Your task to perform on an android device: toggle sleep mode Image 0: 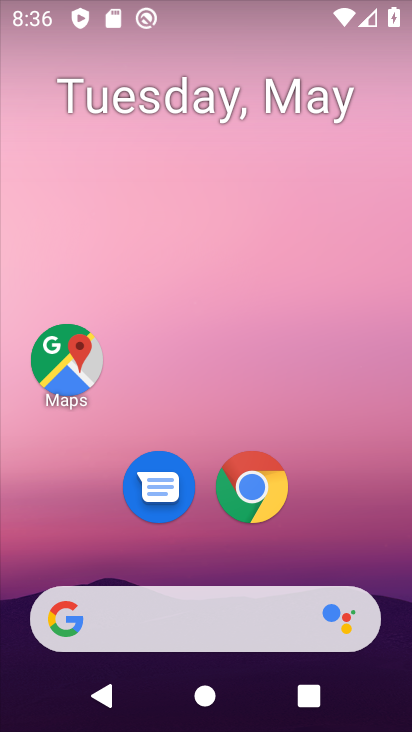
Step 0: drag from (187, 613) to (318, 141)
Your task to perform on an android device: toggle sleep mode Image 1: 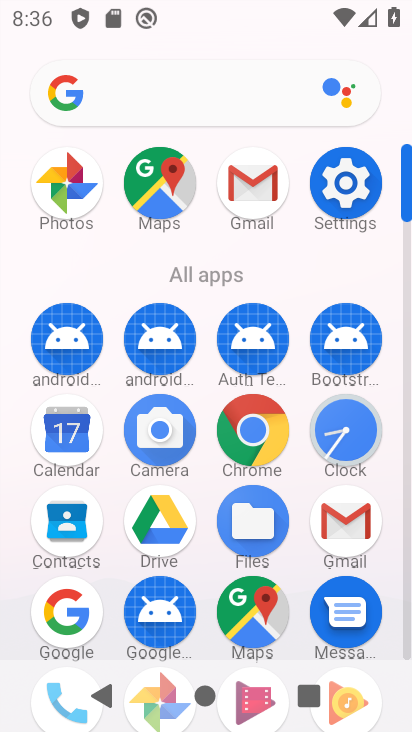
Step 1: click (339, 182)
Your task to perform on an android device: toggle sleep mode Image 2: 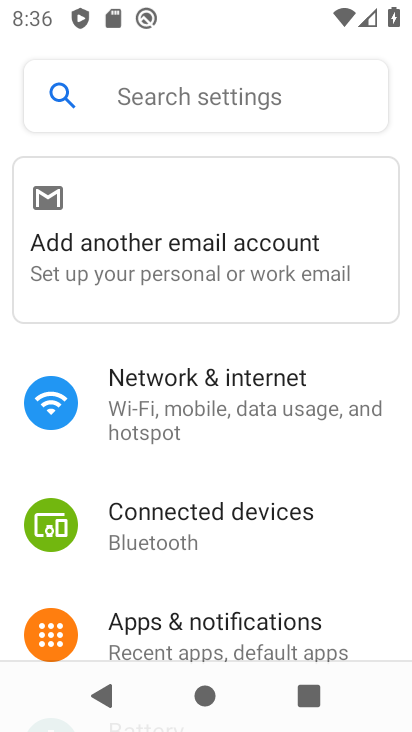
Step 2: drag from (224, 570) to (376, 146)
Your task to perform on an android device: toggle sleep mode Image 3: 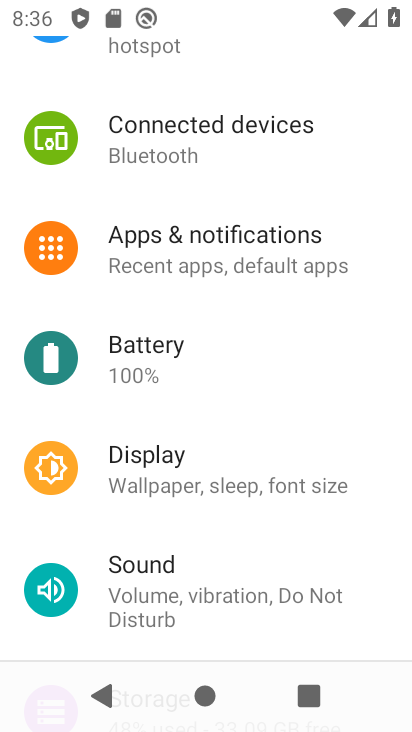
Step 3: click (174, 453)
Your task to perform on an android device: toggle sleep mode Image 4: 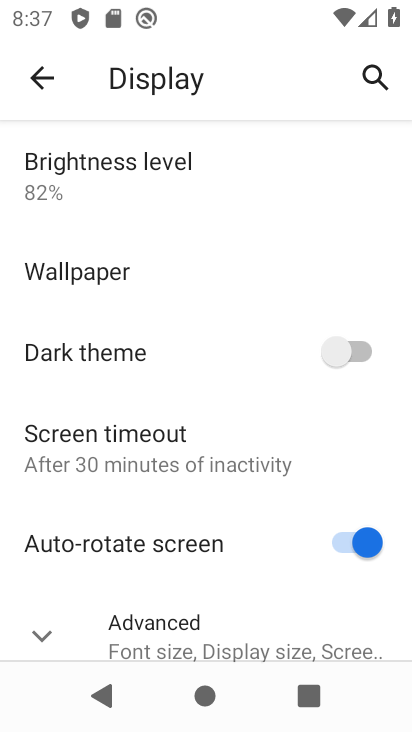
Step 4: task complete